Your task to perform on an android device: Go to Android settings Image 0: 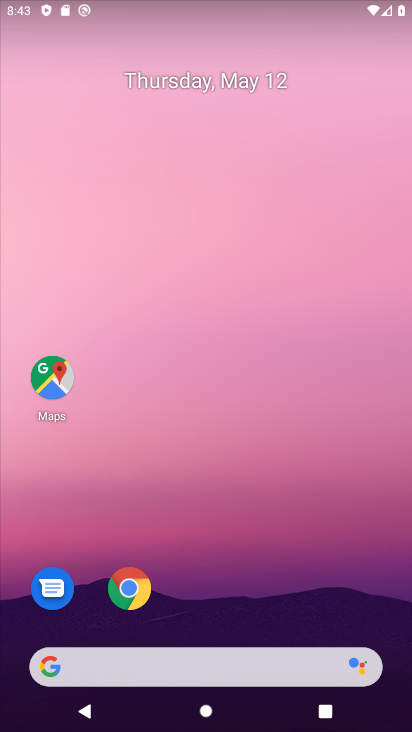
Step 0: drag from (304, 605) to (218, 155)
Your task to perform on an android device: Go to Android settings Image 1: 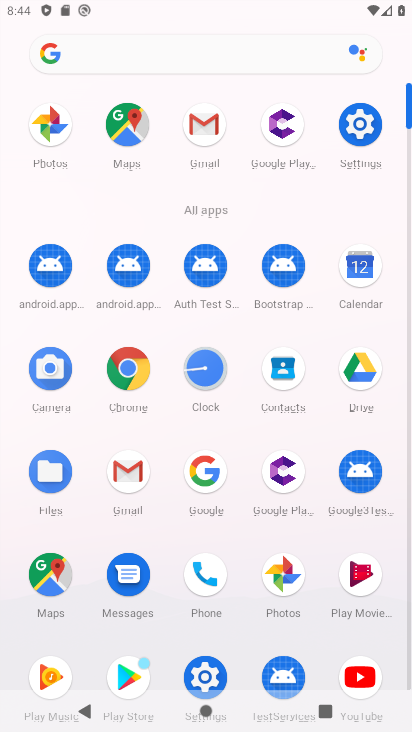
Step 1: click (369, 131)
Your task to perform on an android device: Go to Android settings Image 2: 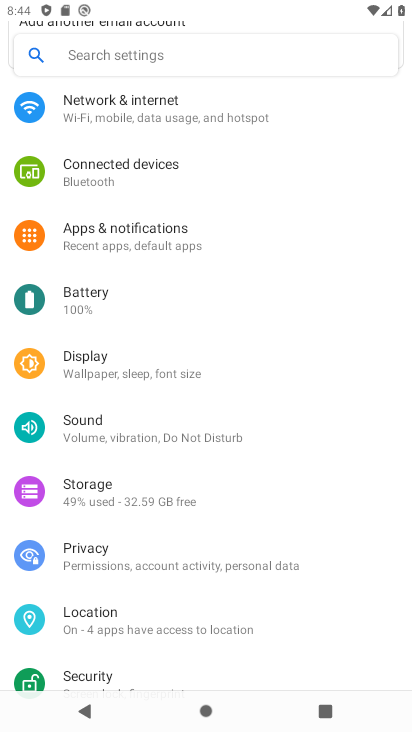
Step 2: task complete